Your task to perform on an android device: turn on bluetooth scan Image 0: 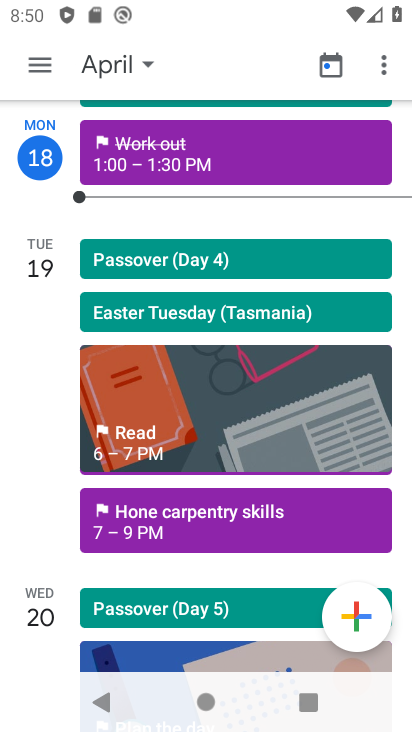
Step 0: drag from (225, 12) to (246, 544)
Your task to perform on an android device: turn on bluetooth scan Image 1: 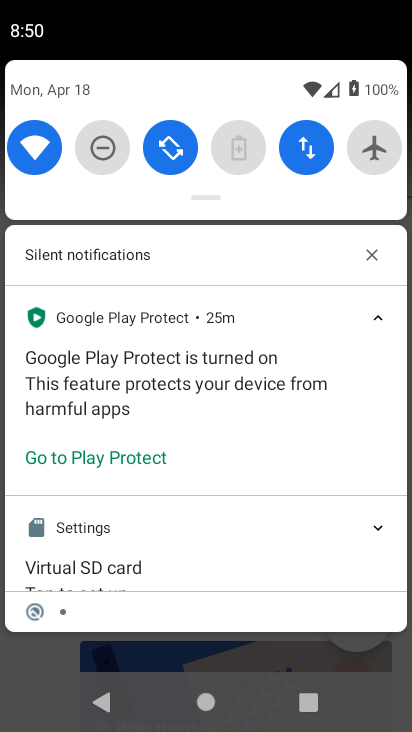
Step 1: drag from (217, 73) to (245, 542)
Your task to perform on an android device: turn on bluetooth scan Image 2: 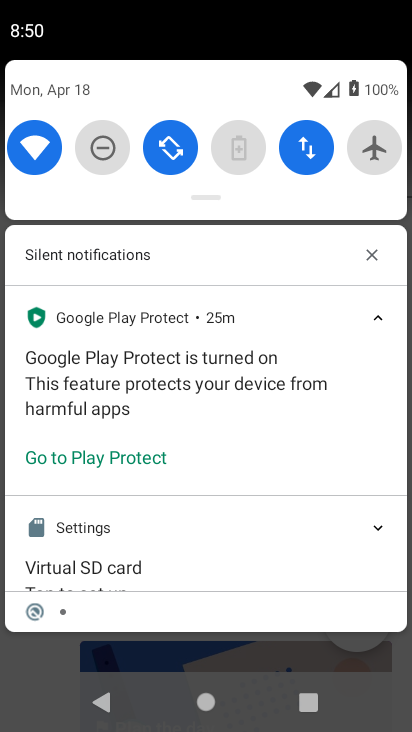
Step 2: drag from (244, 81) to (238, 597)
Your task to perform on an android device: turn on bluetooth scan Image 3: 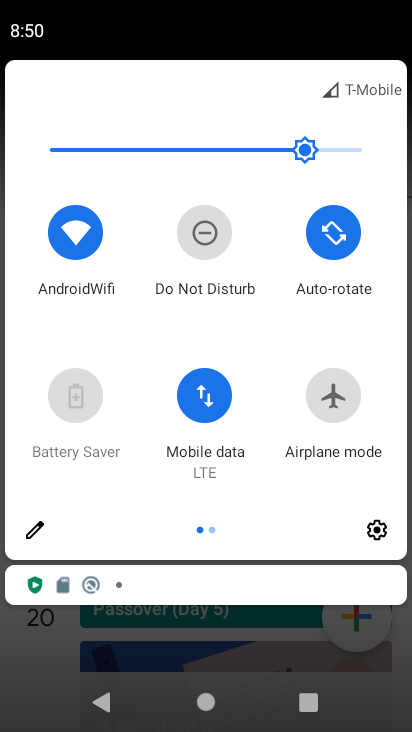
Step 3: click (375, 532)
Your task to perform on an android device: turn on bluetooth scan Image 4: 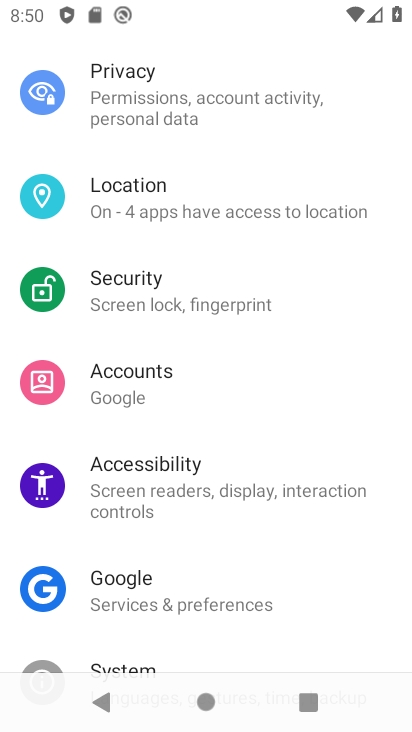
Step 4: click (162, 210)
Your task to perform on an android device: turn on bluetooth scan Image 5: 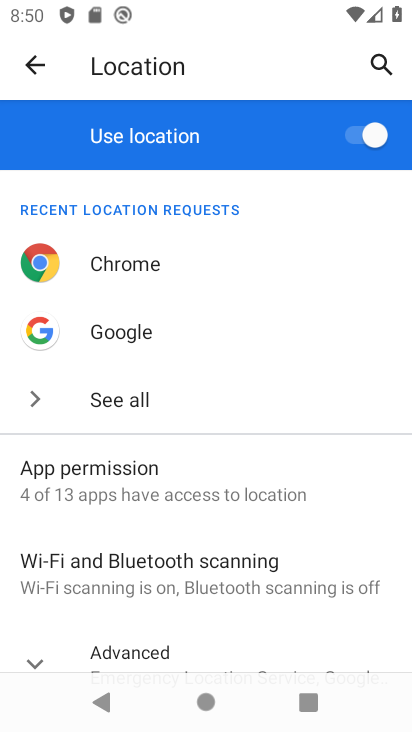
Step 5: drag from (151, 592) to (212, 94)
Your task to perform on an android device: turn on bluetooth scan Image 6: 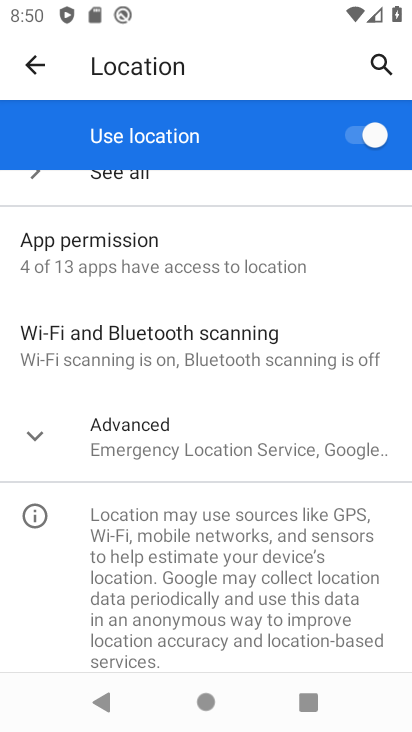
Step 6: click (212, 354)
Your task to perform on an android device: turn on bluetooth scan Image 7: 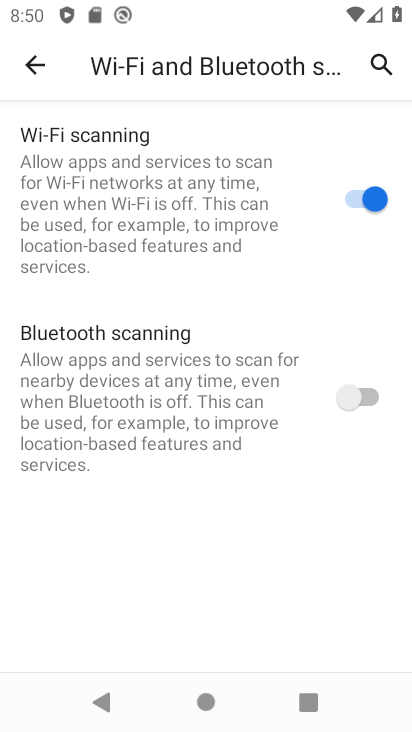
Step 7: click (377, 398)
Your task to perform on an android device: turn on bluetooth scan Image 8: 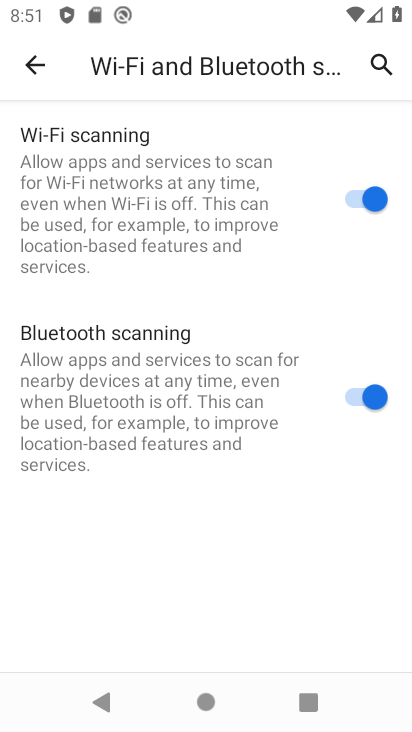
Step 8: task complete